Your task to perform on an android device: Go to Maps Image 0: 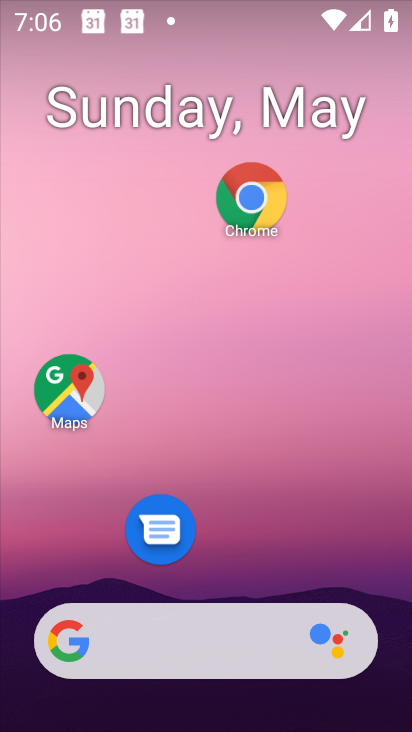
Step 0: click (70, 382)
Your task to perform on an android device: Go to Maps Image 1: 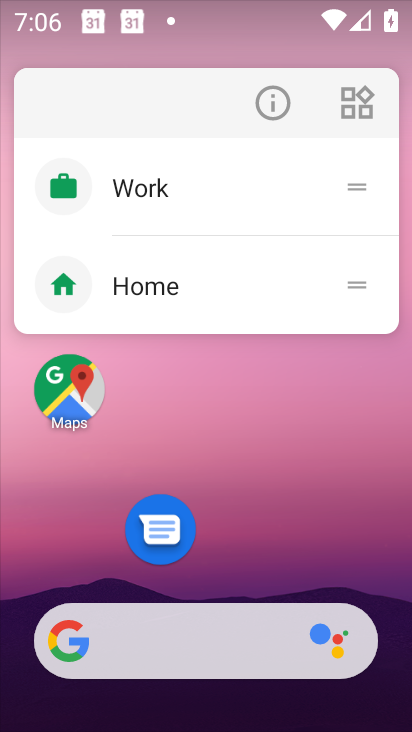
Step 1: click (68, 387)
Your task to perform on an android device: Go to Maps Image 2: 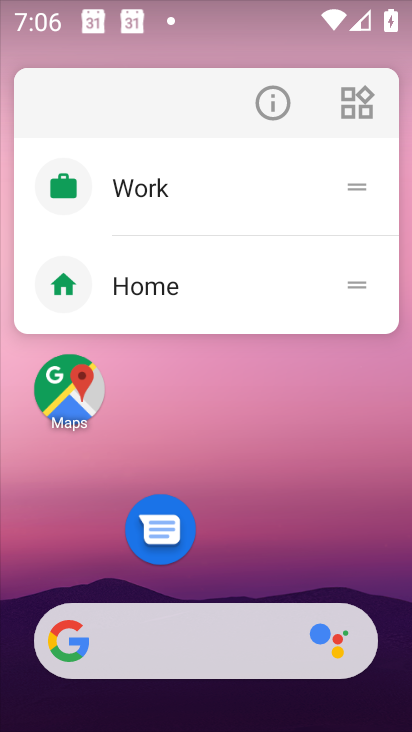
Step 2: click (271, 110)
Your task to perform on an android device: Go to Maps Image 3: 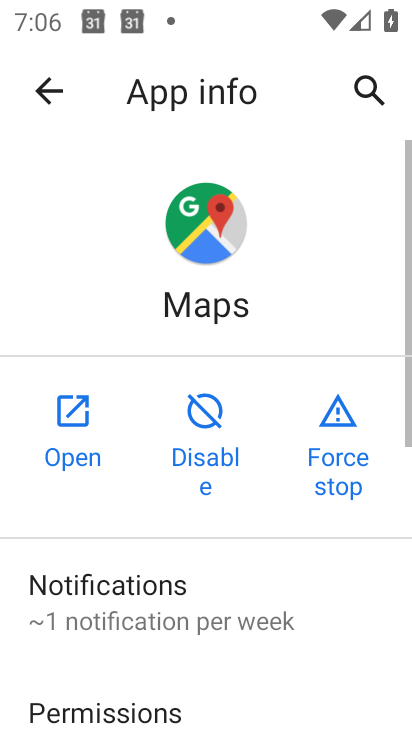
Step 3: click (85, 418)
Your task to perform on an android device: Go to Maps Image 4: 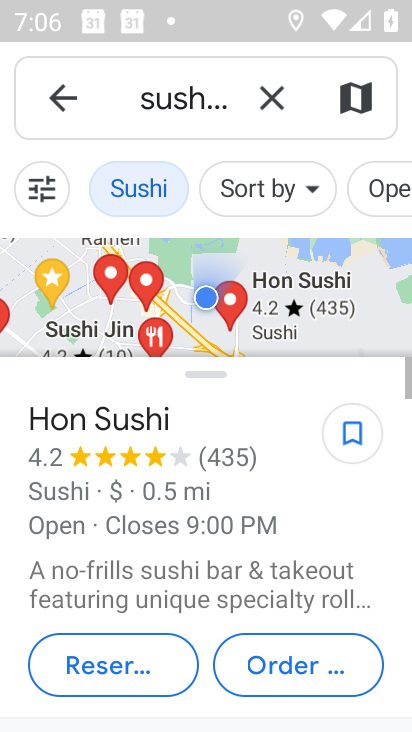
Step 4: task complete